Your task to perform on an android device: snooze an email in the gmail app Image 0: 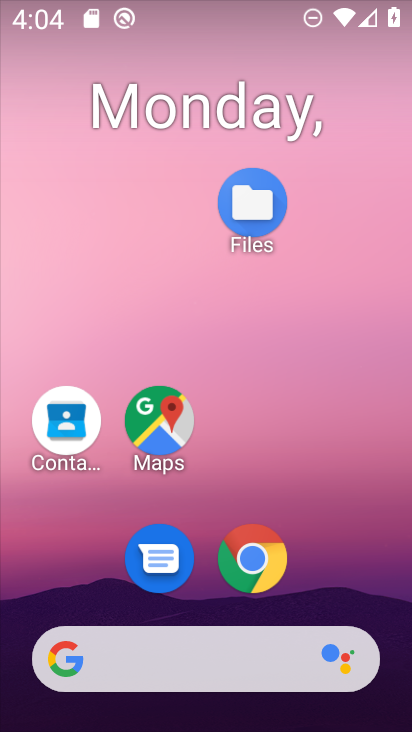
Step 0: drag from (228, 621) to (274, 111)
Your task to perform on an android device: snooze an email in the gmail app Image 1: 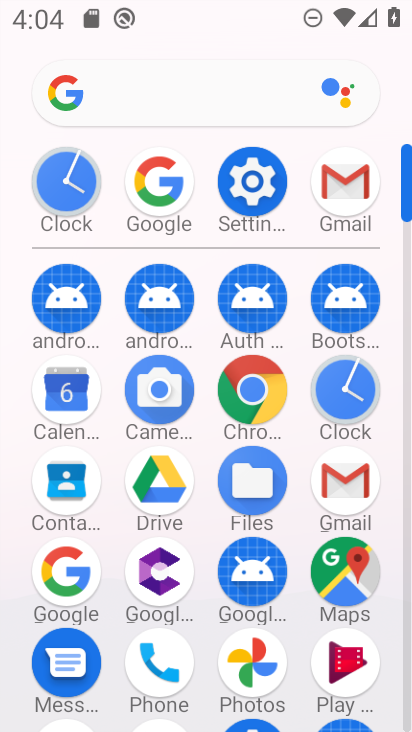
Step 1: click (347, 499)
Your task to perform on an android device: snooze an email in the gmail app Image 2: 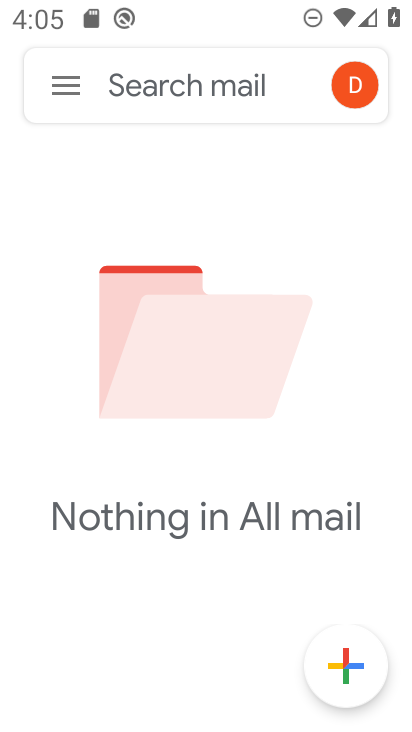
Step 2: click (66, 81)
Your task to perform on an android device: snooze an email in the gmail app Image 3: 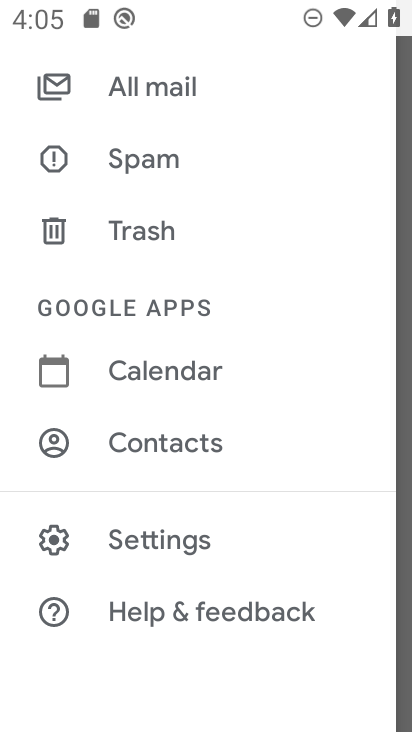
Step 3: click (138, 102)
Your task to perform on an android device: snooze an email in the gmail app Image 4: 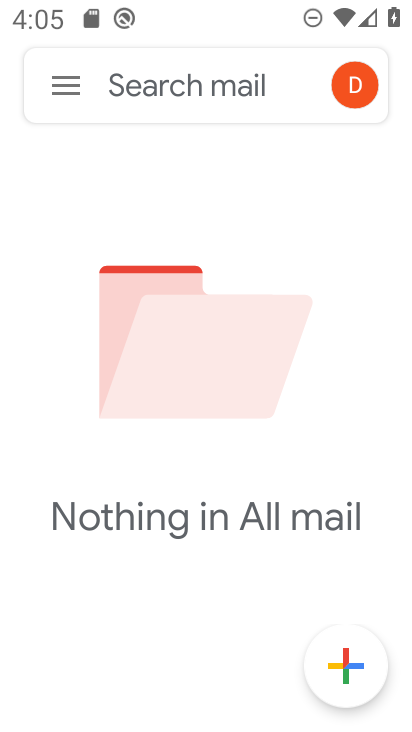
Step 4: task complete